Your task to perform on an android device: turn off improve location accuracy Image 0: 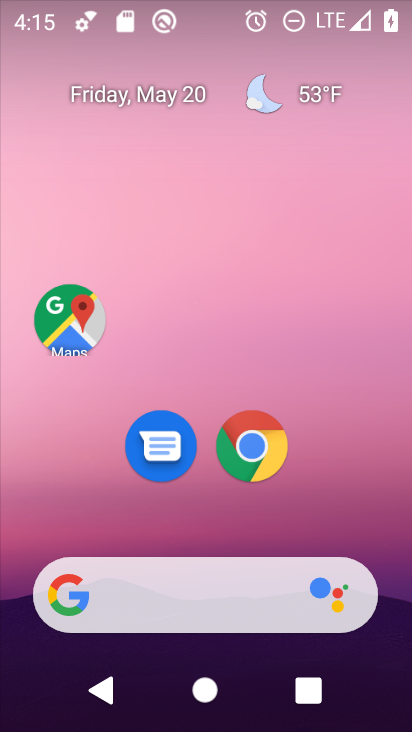
Step 0: drag from (371, 481) to (333, 87)
Your task to perform on an android device: turn off improve location accuracy Image 1: 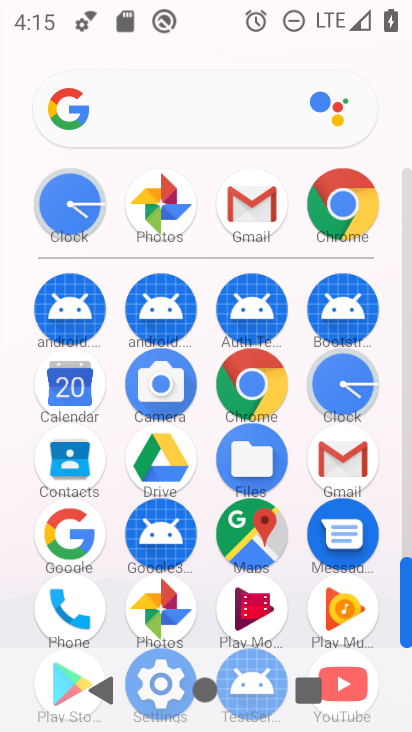
Step 1: drag from (383, 485) to (338, 124)
Your task to perform on an android device: turn off improve location accuracy Image 2: 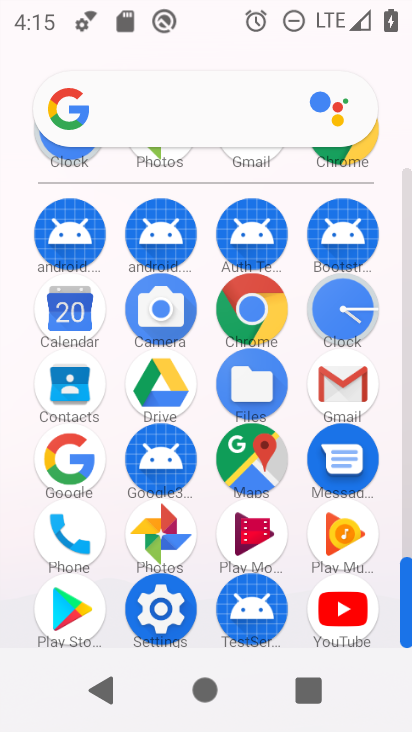
Step 2: click (155, 605)
Your task to perform on an android device: turn off improve location accuracy Image 3: 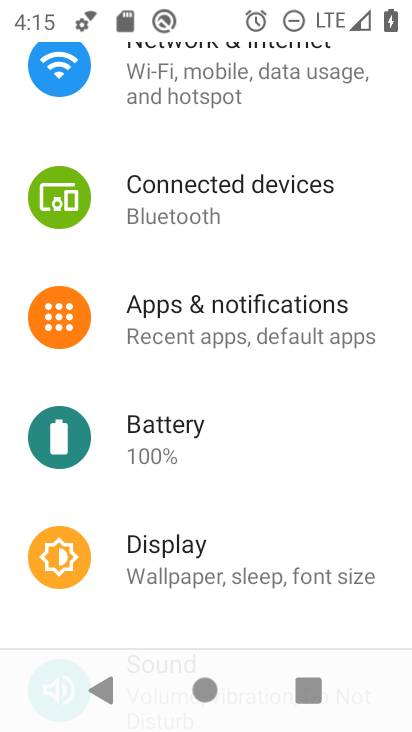
Step 3: drag from (339, 284) to (257, 591)
Your task to perform on an android device: turn off improve location accuracy Image 4: 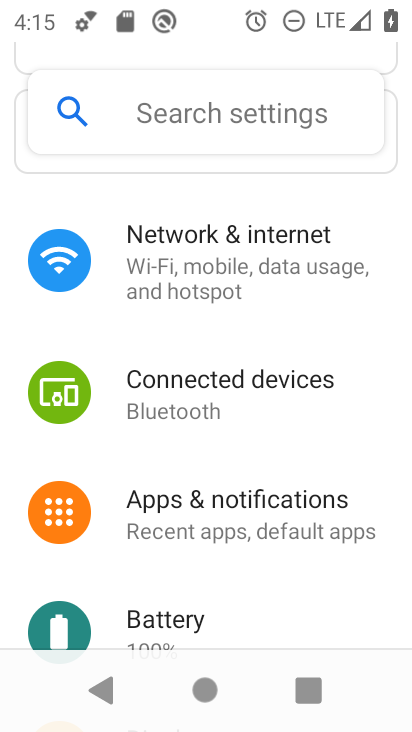
Step 4: drag from (208, 435) to (232, 92)
Your task to perform on an android device: turn off improve location accuracy Image 5: 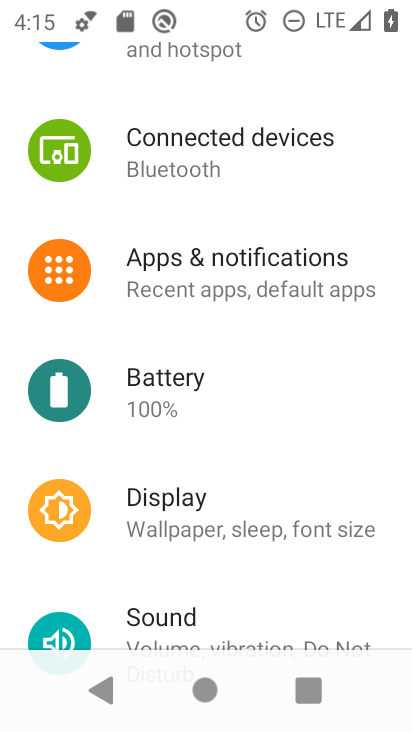
Step 5: drag from (229, 467) to (251, 168)
Your task to perform on an android device: turn off improve location accuracy Image 6: 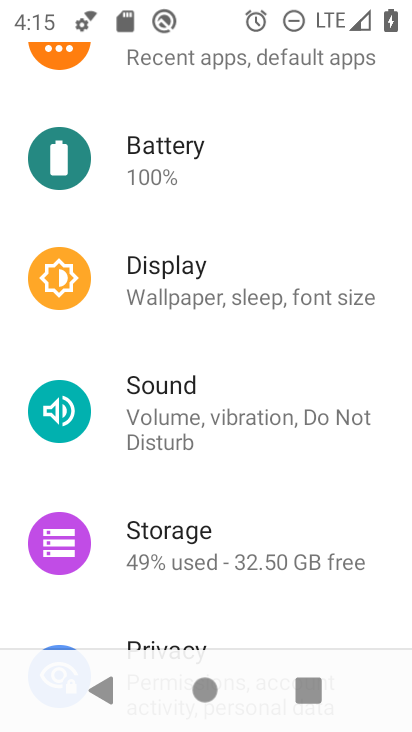
Step 6: drag from (200, 531) to (243, 269)
Your task to perform on an android device: turn off improve location accuracy Image 7: 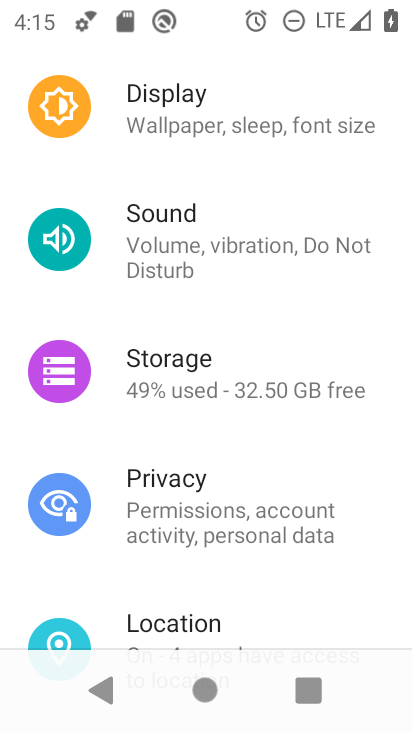
Step 7: drag from (193, 586) to (227, 256)
Your task to perform on an android device: turn off improve location accuracy Image 8: 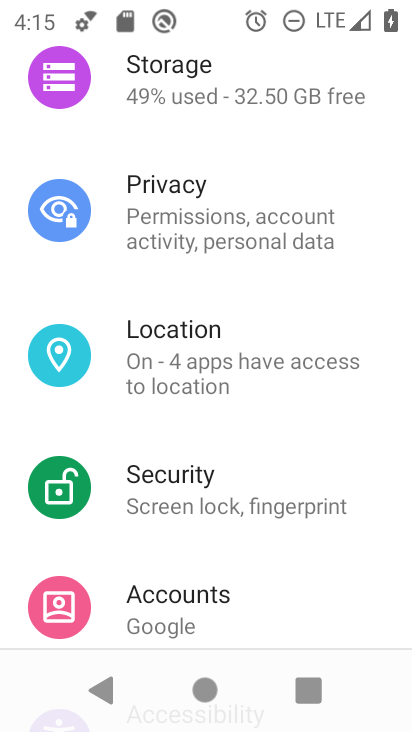
Step 8: click (204, 352)
Your task to perform on an android device: turn off improve location accuracy Image 9: 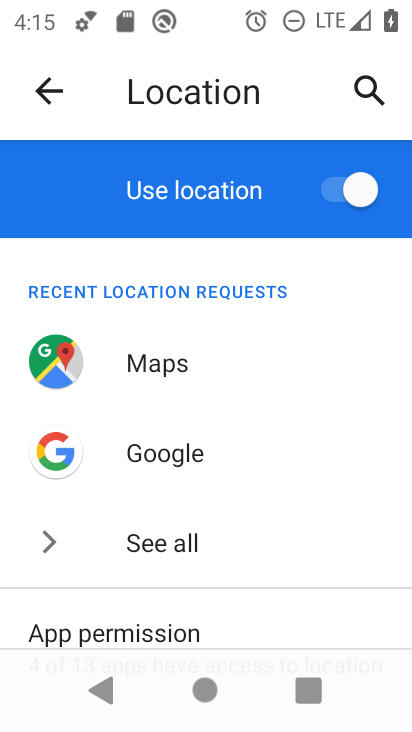
Step 9: drag from (221, 601) to (245, 304)
Your task to perform on an android device: turn off improve location accuracy Image 10: 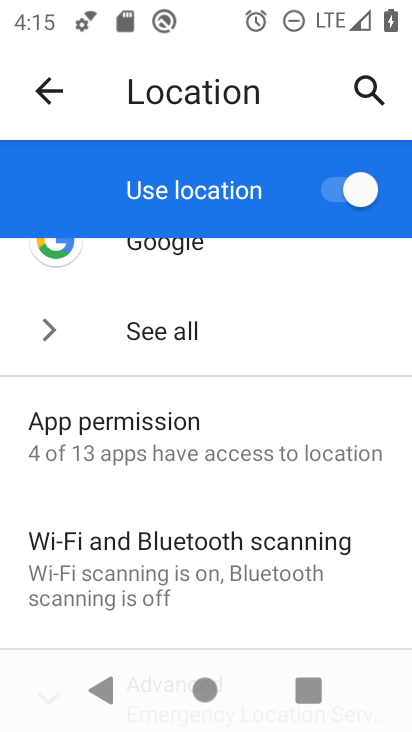
Step 10: drag from (213, 564) to (234, 296)
Your task to perform on an android device: turn off improve location accuracy Image 11: 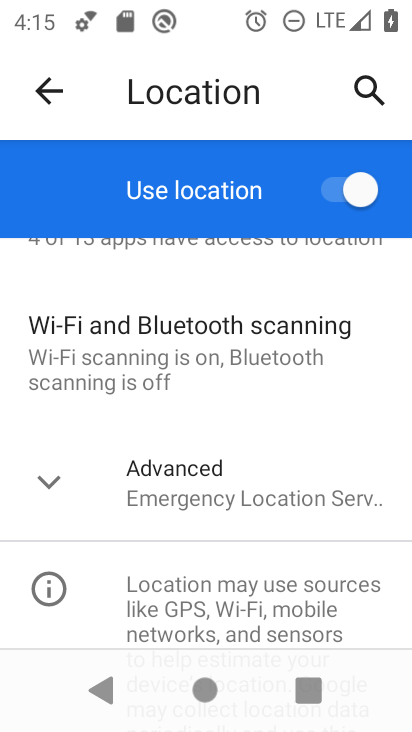
Step 11: click (193, 492)
Your task to perform on an android device: turn off improve location accuracy Image 12: 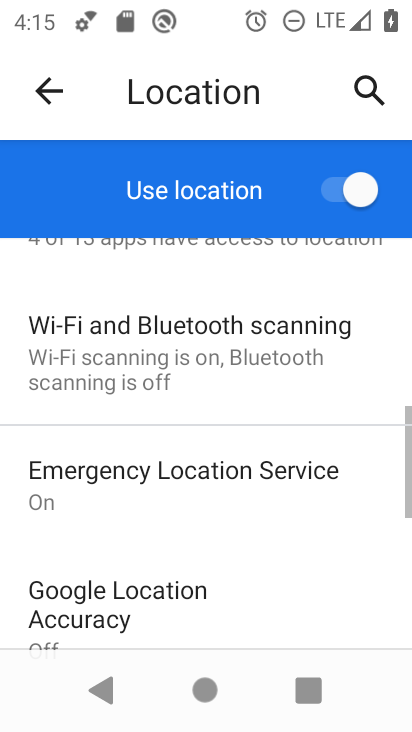
Step 12: drag from (154, 596) to (177, 281)
Your task to perform on an android device: turn off improve location accuracy Image 13: 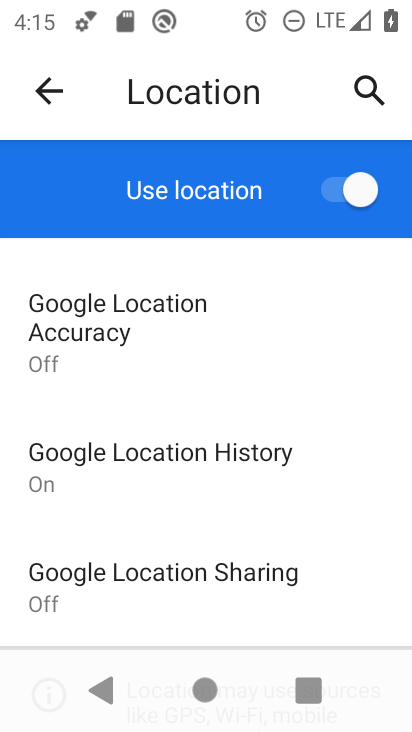
Step 13: click (99, 343)
Your task to perform on an android device: turn off improve location accuracy Image 14: 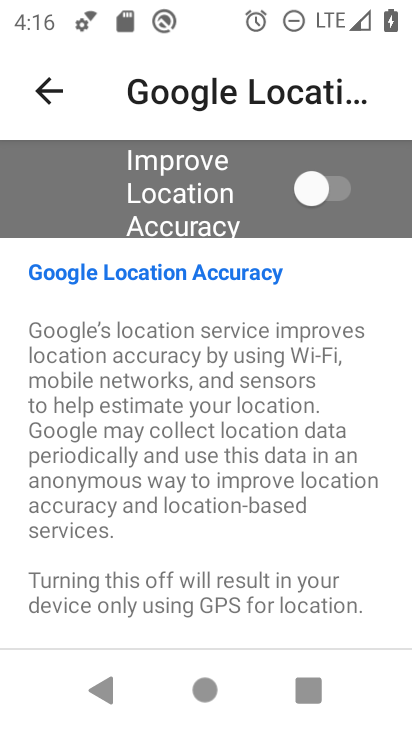
Step 14: task complete